Your task to perform on an android device: check battery use Image 0: 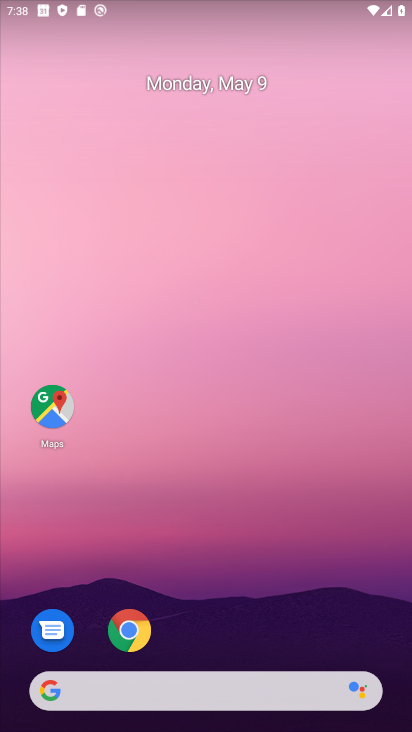
Step 0: press home button
Your task to perform on an android device: check battery use Image 1: 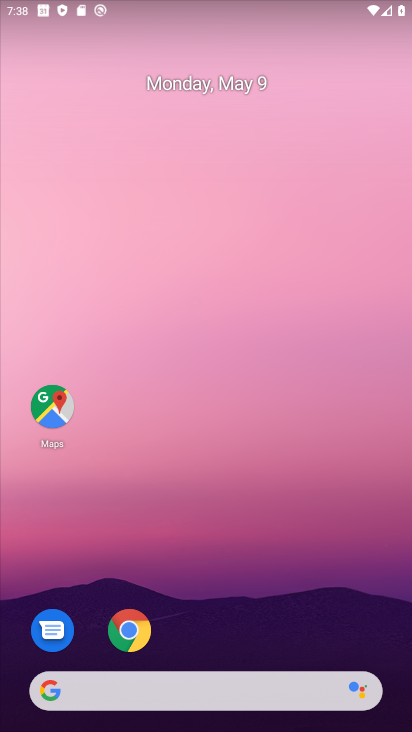
Step 1: drag from (279, 691) to (321, 299)
Your task to perform on an android device: check battery use Image 2: 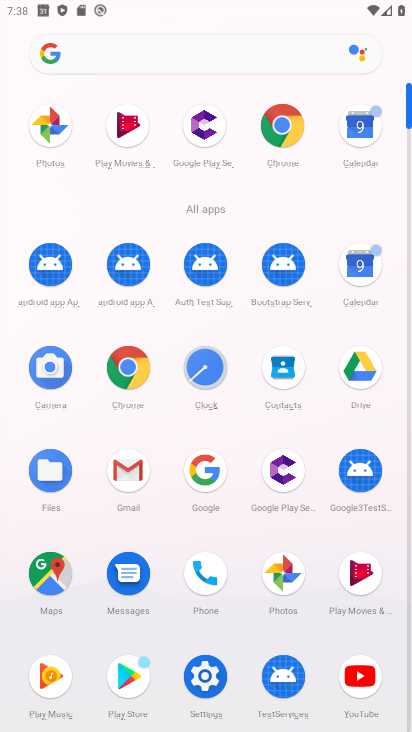
Step 2: click (203, 664)
Your task to perform on an android device: check battery use Image 3: 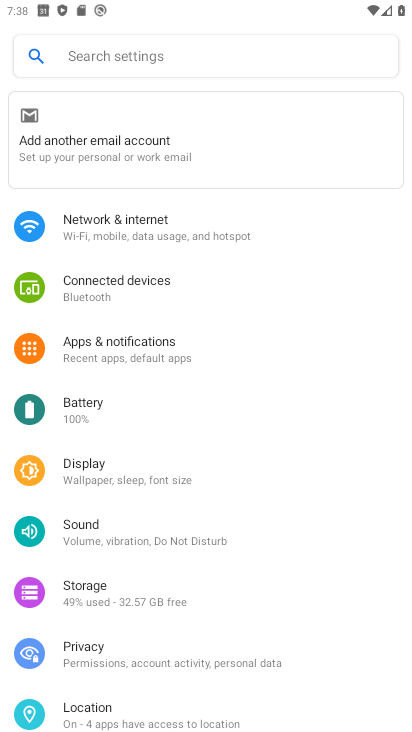
Step 3: click (103, 406)
Your task to perform on an android device: check battery use Image 4: 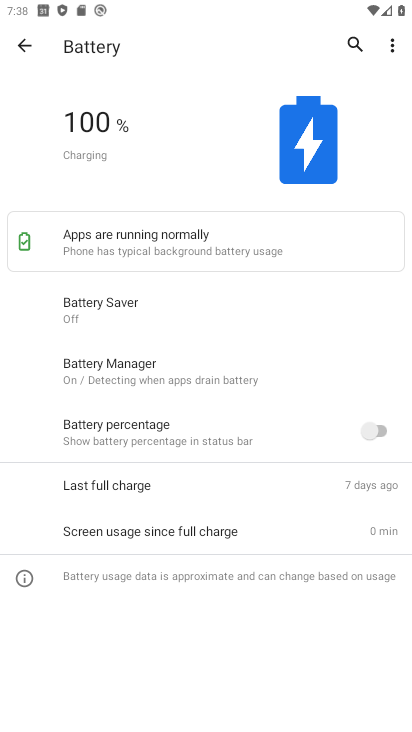
Step 4: click (394, 50)
Your task to perform on an android device: check battery use Image 5: 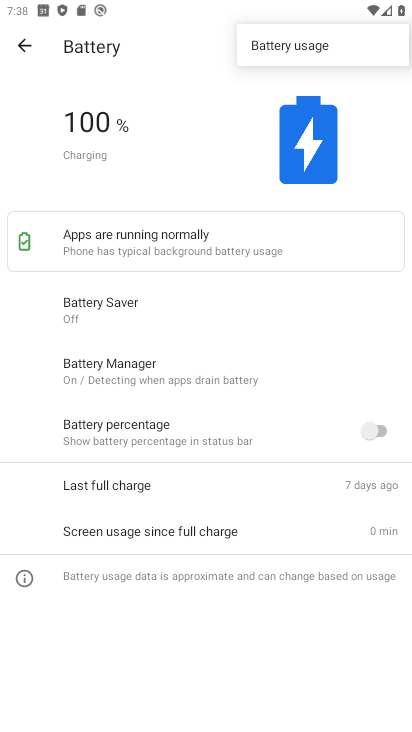
Step 5: click (260, 55)
Your task to perform on an android device: check battery use Image 6: 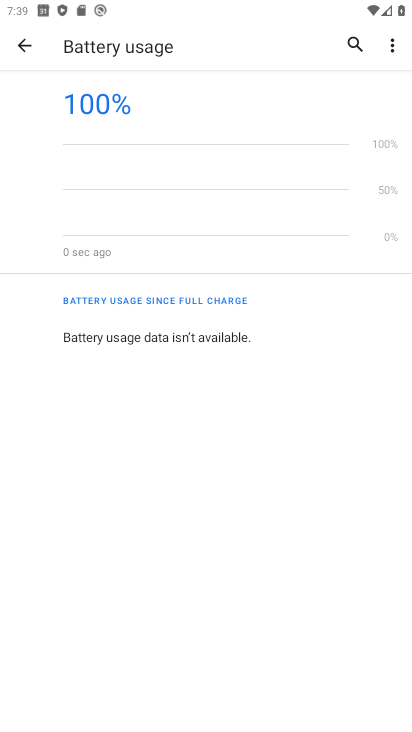
Step 6: task complete